Your task to perform on an android device: turn on data saver in the chrome app Image 0: 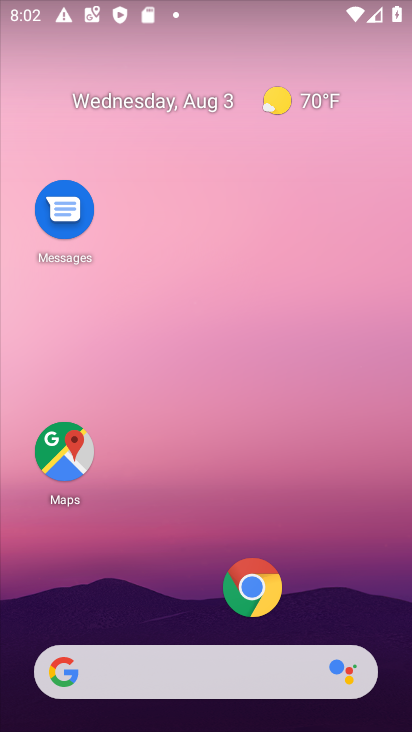
Step 0: click (243, 592)
Your task to perform on an android device: turn on data saver in the chrome app Image 1: 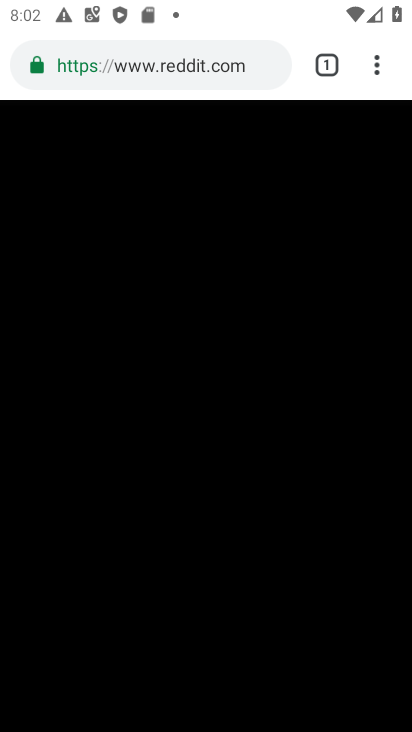
Step 1: click (379, 85)
Your task to perform on an android device: turn on data saver in the chrome app Image 2: 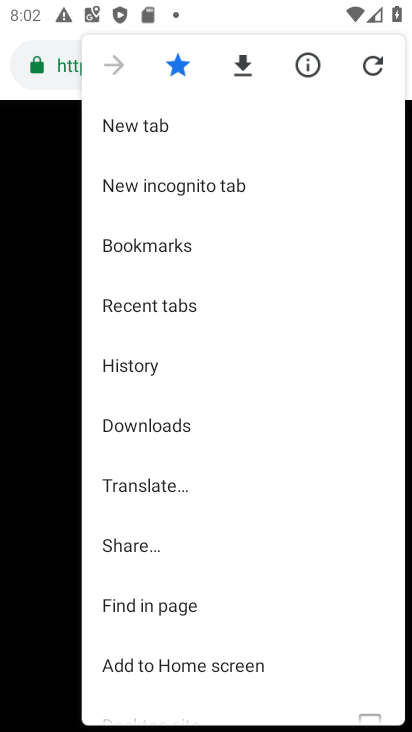
Step 2: drag from (230, 705) to (161, 265)
Your task to perform on an android device: turn on data saver in the chrome app Image 3: 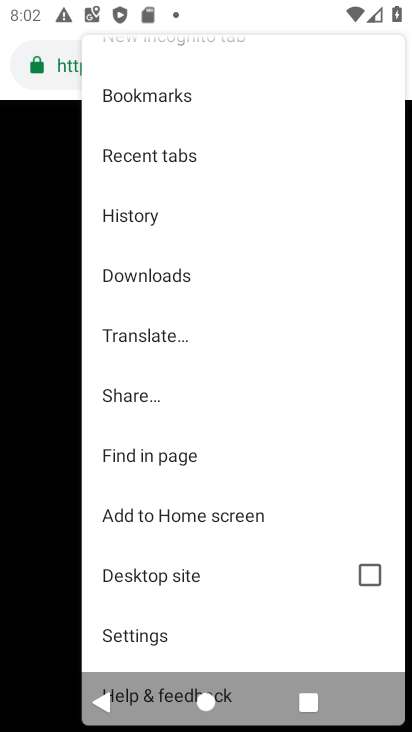
Step 3: click (191, 640)
Your task to perform on an android device: turn on data saver in the chrome app Image 4: 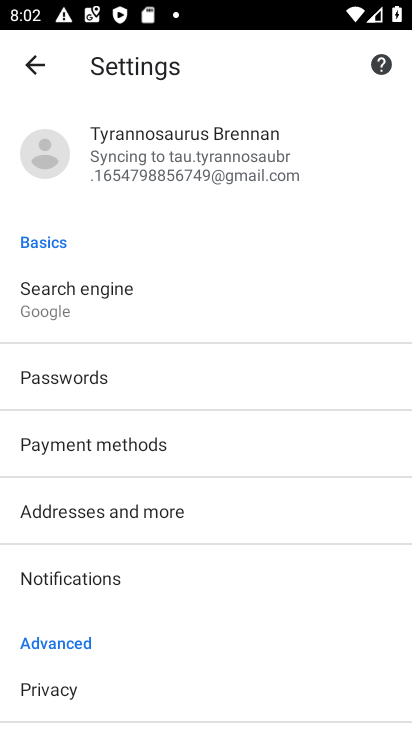
Step 4: drag from (201, 676) to (174, 470)
Your task to perform on an android device: turn on data saver in the chrome app Image 5: 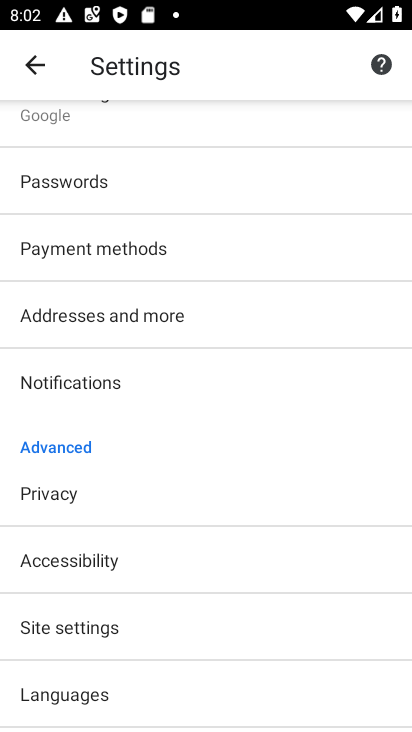
Step 5: drag from (146, 647) to (146, 432)
Your task to perform on an android device: turn on data saver in the chrome app Image 6: 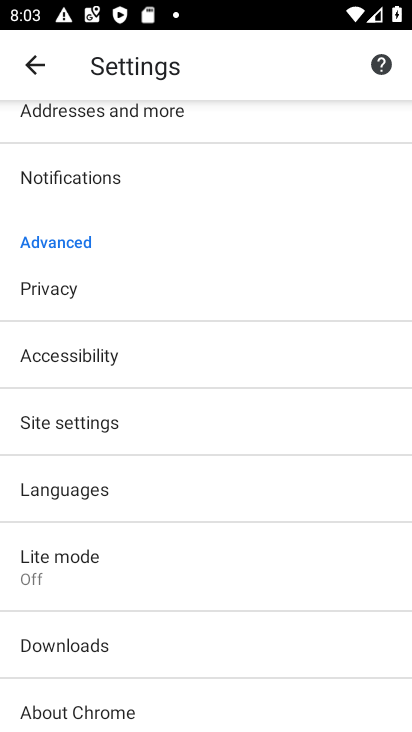
Step 6: click (113, 583)
Your task to perform on an android device: turn on data saver in the chrome app Image 7: 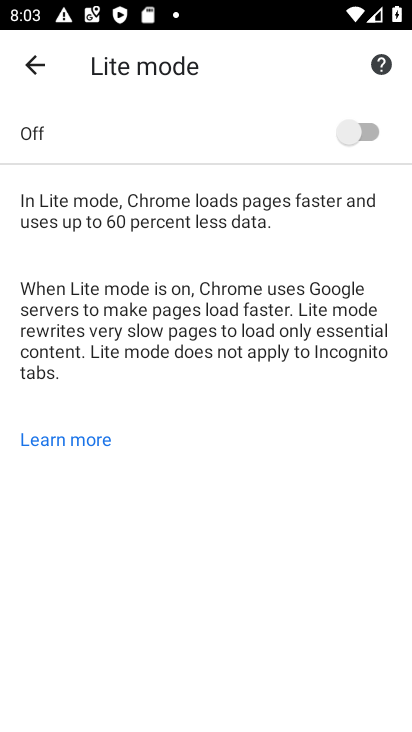
Step 7: click (357, 121)
Your task to perform on an android device: turn on data saver in the chrome app Image 8: 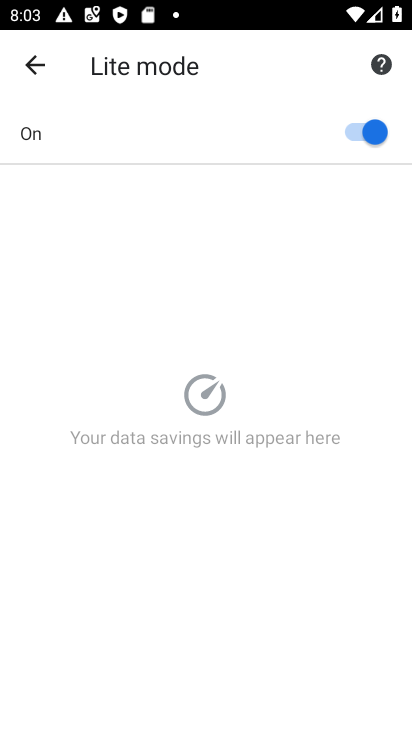
Step 8: task complete